Your task to perform on an android device: change the clock display to analog Image 0: 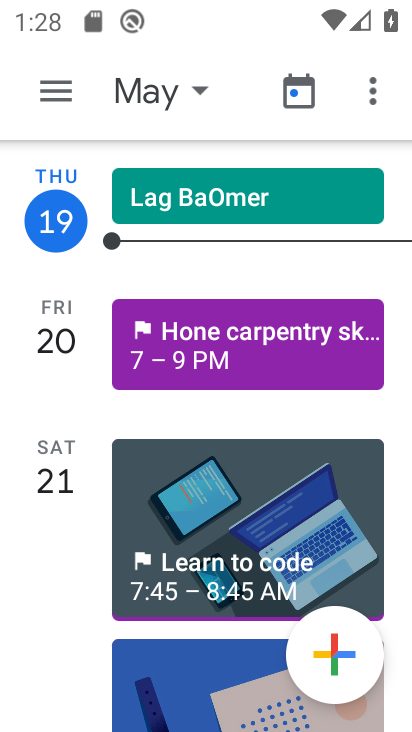
Step 0: press home button
Your task to perform on an android device: change the clock display to analog Image 1: 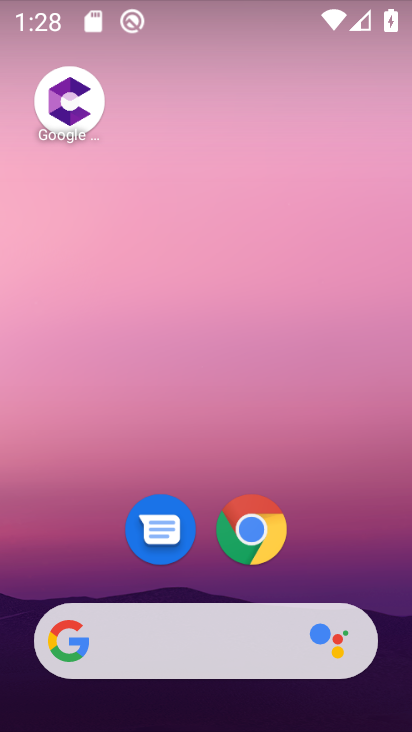
Step 1: drag from (285, 573) to (275, 206)
Your task to perform on an android device: change the clock display to analog Image 2: 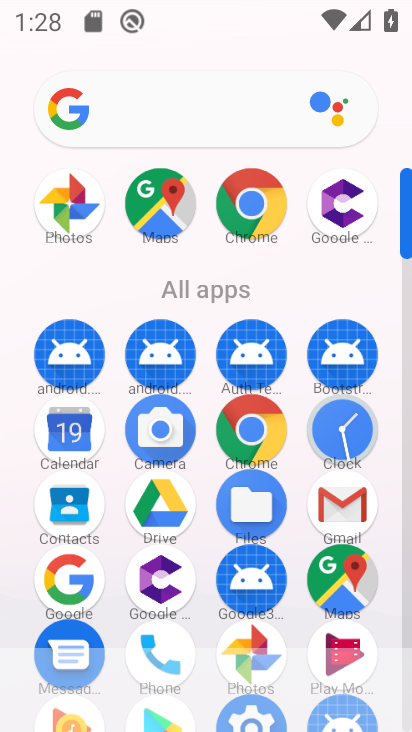
Step 2: click (283, 314)
Your task to perform on an android device: change the clock display to analog Image 3: 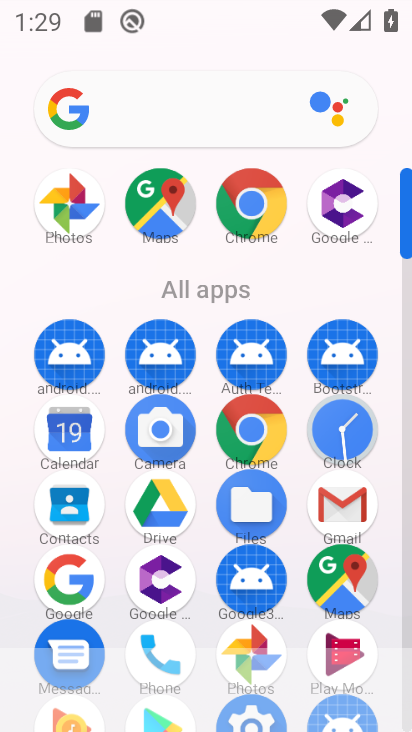
Step 3: click (341, 428)
Your task to perform on an android device: change the clock display to analog Image 4: 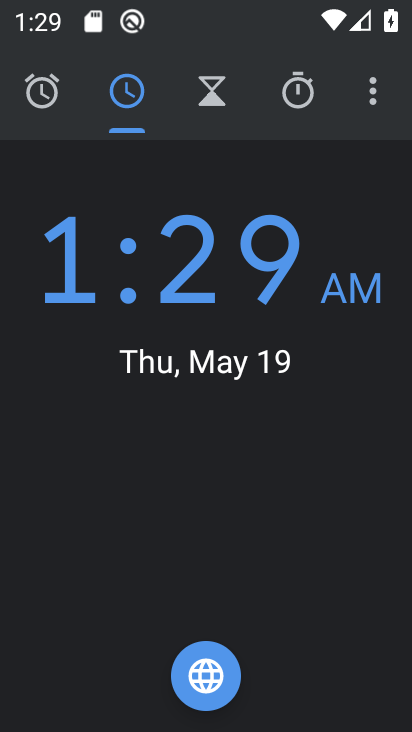
Step 4: click (384, 101)
Your task to perform on an android device: change the clock display to analog Image 5: 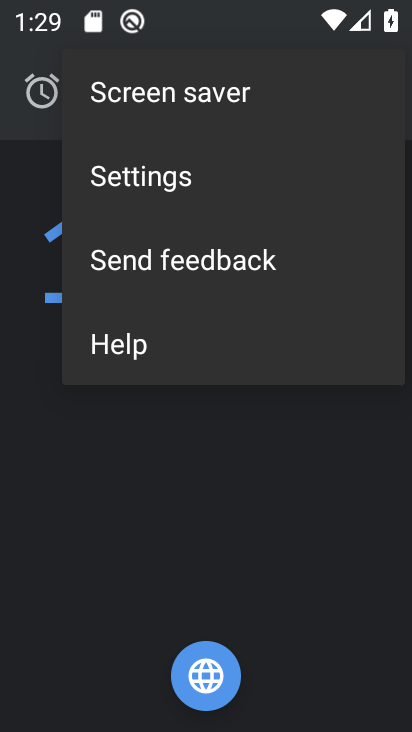
Step 5: click (123, 188)
Your task to perform on an android device: change the clock display to analog Image 6: 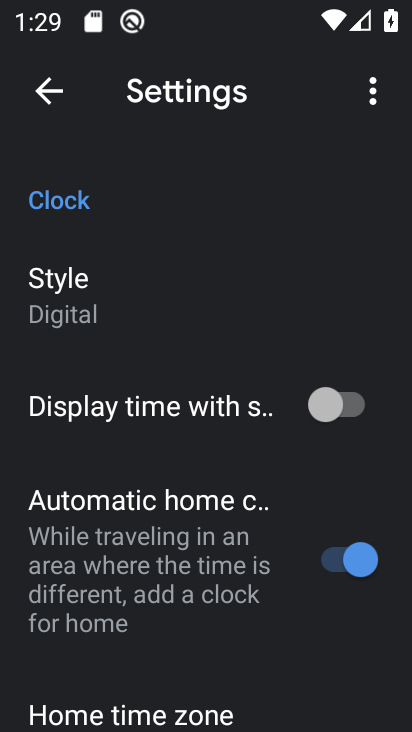
Step 6: click (67, 305)
Your task to perform on an android device: change the clock display to analog Image 7: 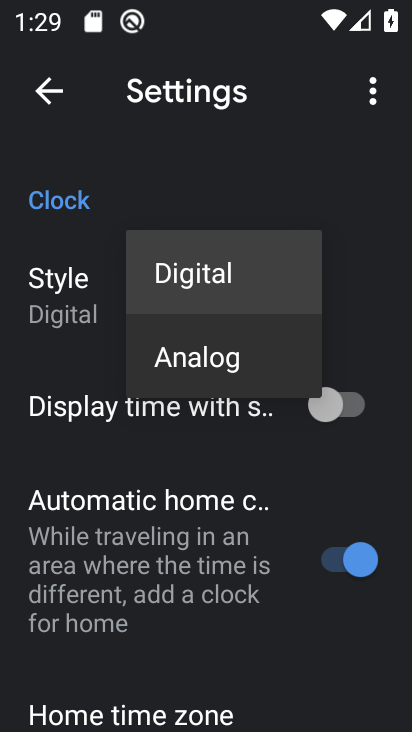
Step 7: click (217, 363)
Your task to perform on an android device: change the clock display to analog Image 8: 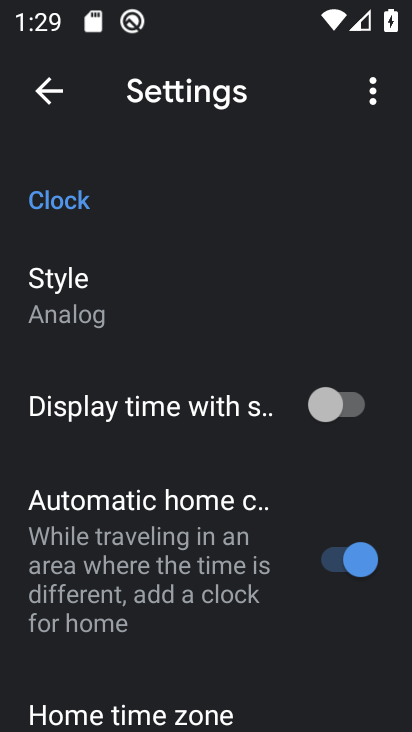
Step 8: task complete